Your task to perform on an android device: Go to sound settings Image 0: 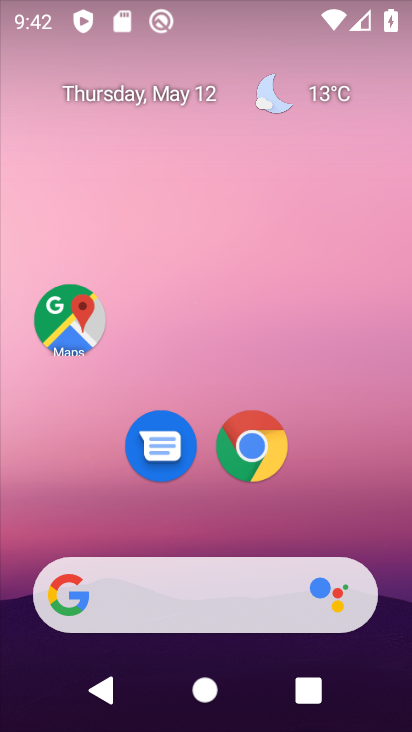
Step 0: drag from (259, 577) to (363, 73)
Your task to perform on an android device: Go to sound settings Image 1: 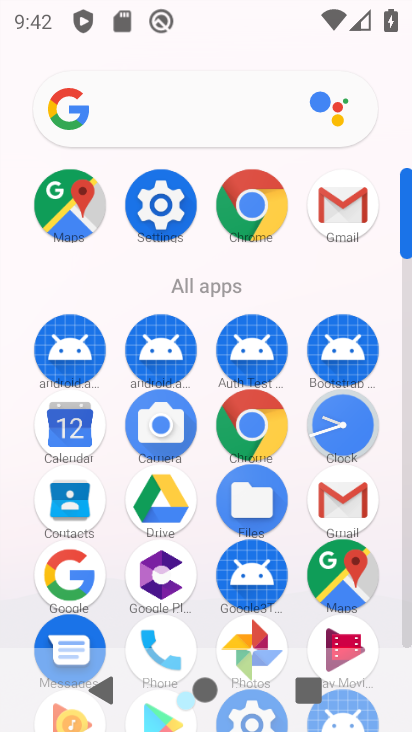
Step 1: click (152, 214)
Your task to perform on an android device: Go to sound settings Image 2: 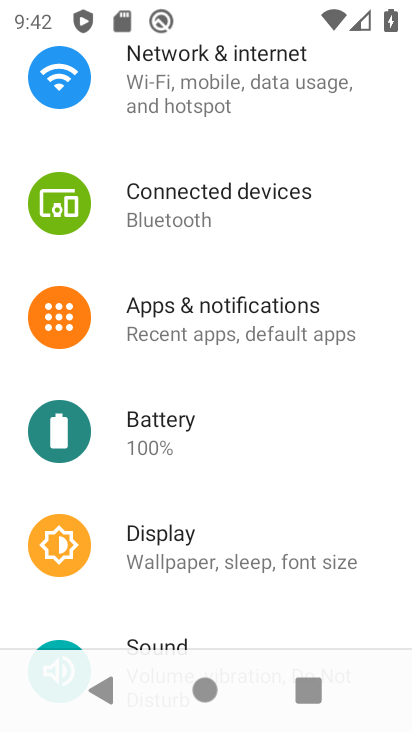
Step 2: drag from (192, 565) to (257, 324)
Your task to perform on an android device: Go to sound settings Image 3: 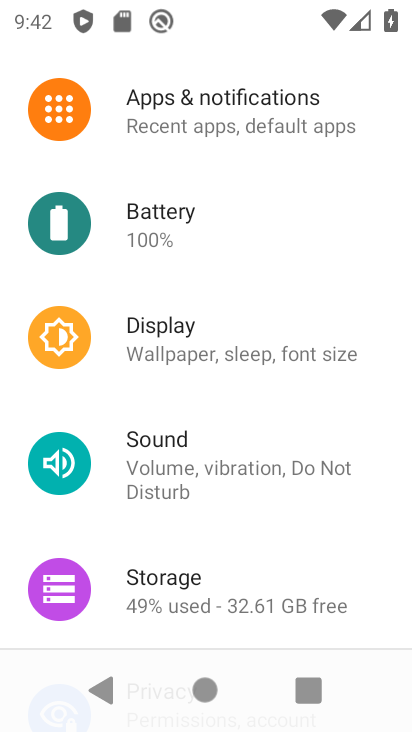
Step 3: click (229, 451)
Your task to perform on an android device: Go to sound settings Image 4: 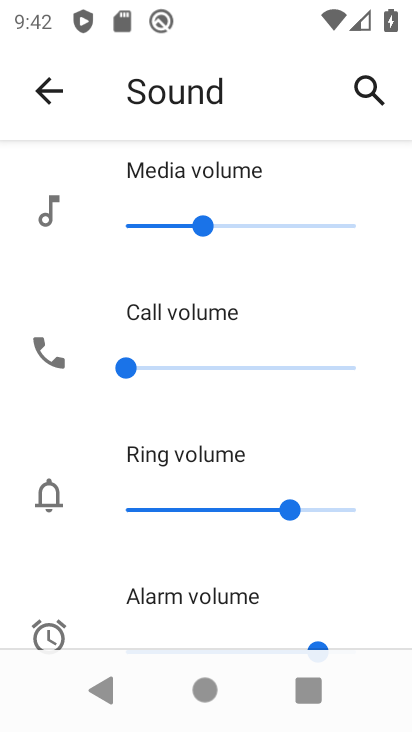
Step 4: task complete